Your task to perform on an android device: Go to CNN.com Image 0: 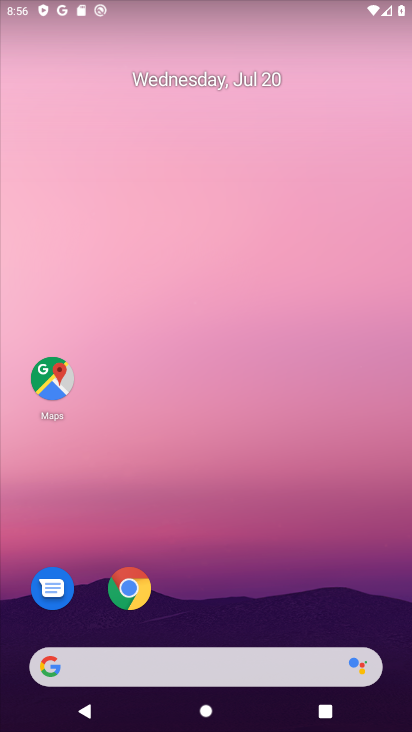
Step 0: drag from (235, 679) to (400, 558)
Your task to perform on an android device: Go to CNN.com Image 1: 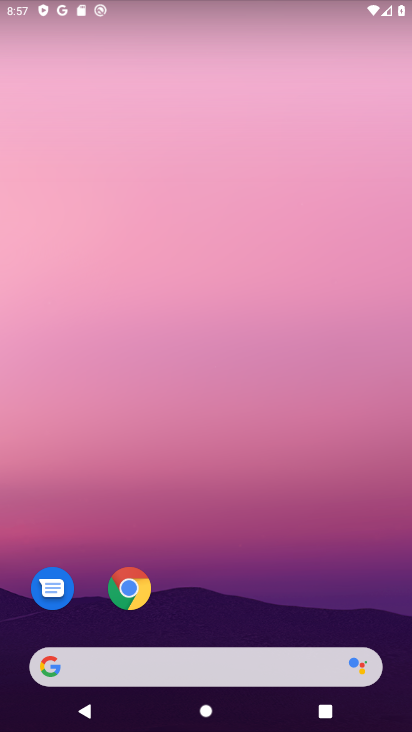
Step 1: drag from (236, 683) to (345, 48)
Your task to perform on an android device: Go to CNN.com Image 2: 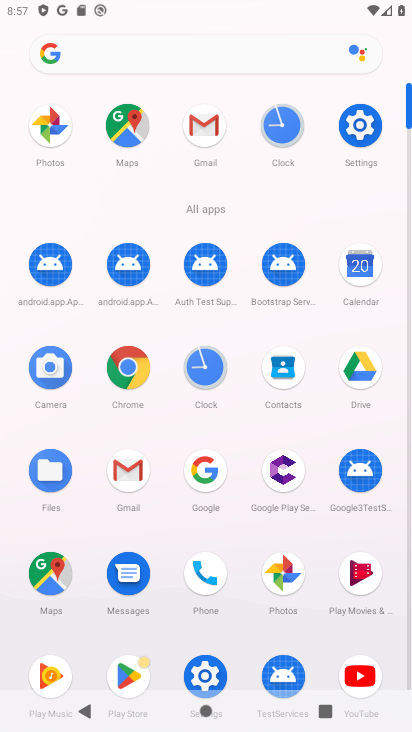
Step 2: click (114, 365)
Your task to perform on an android device: Go to CNN.com Image 3: 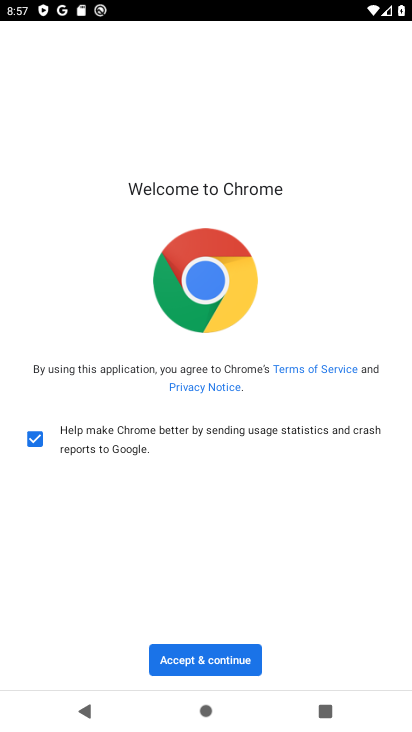
Step 3: click (206, 667)
Your task to perform on an android device: Go to CNN.com Image 4: 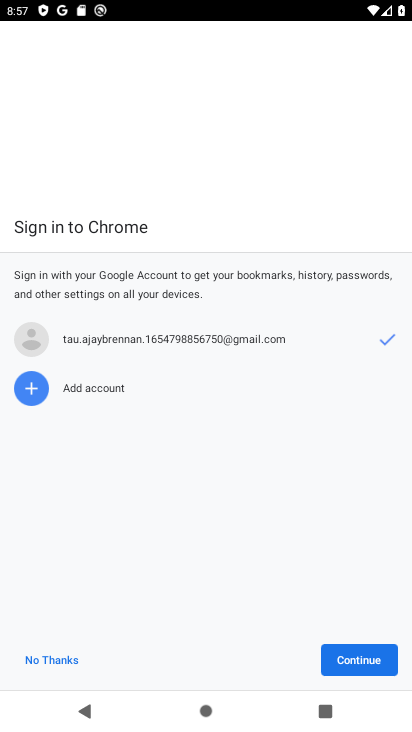
Step 4: click (35, 658)
Your task to perform on an android device: Go to CNN.com Image 5: 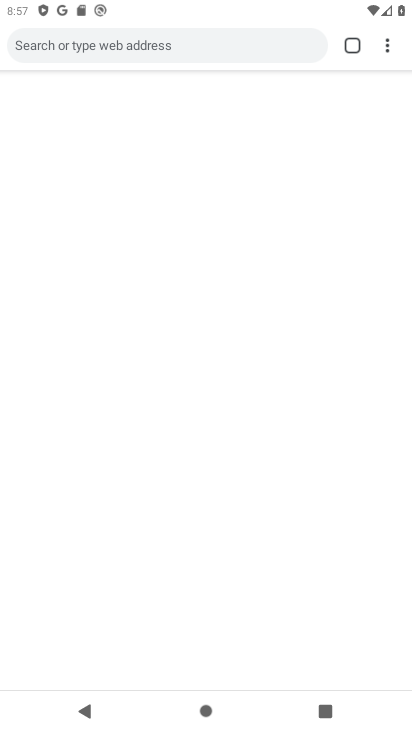
Step 5: click (224, 40)
Your task to perform on an android device: Go to CNN.com Image 6: 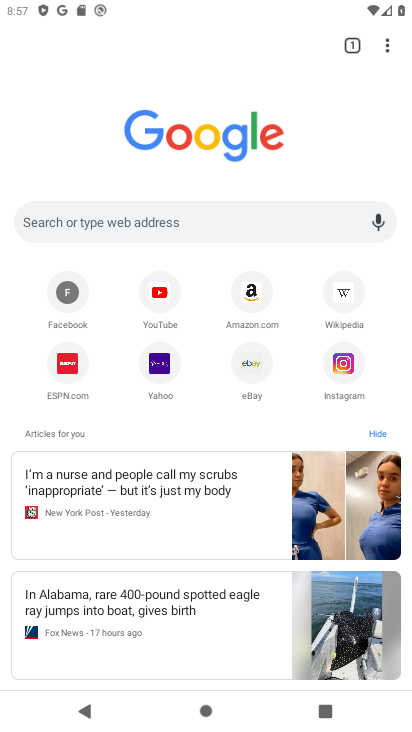
Step 6: click (242, 215)
Your task to perform on an android device: Go to CNN.com Image 7: 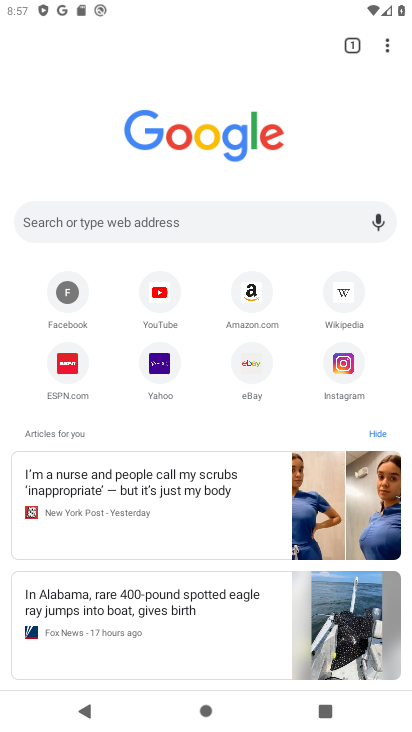
Step 7: click (242, 215)
Your task to perform on an android device: Go to CNN.com Image 8: 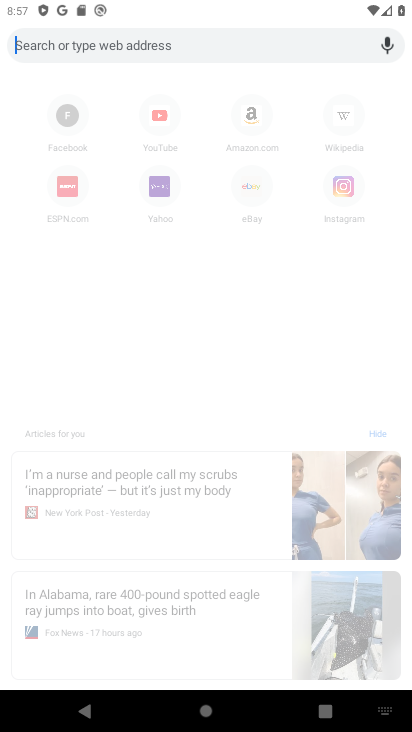
Step 8: type "cnn.com"
Your task to perform on an android device: Go to CNN.com Image 9: 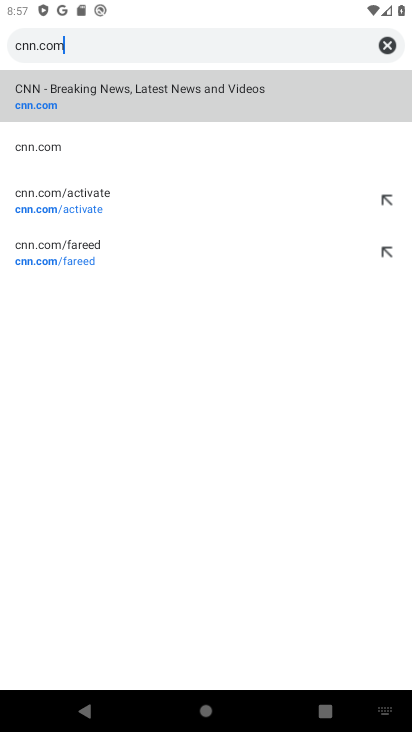
Step 9: click (100, 92)
Your task to perform on an android device: Go to CNN.com Image 10: 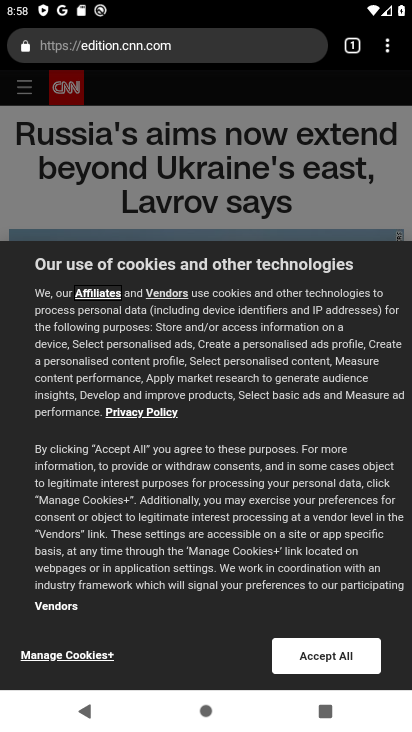
Step 10: task complete